Your task to perform on an android device: Is it going to rain tomorrow? Image 0: 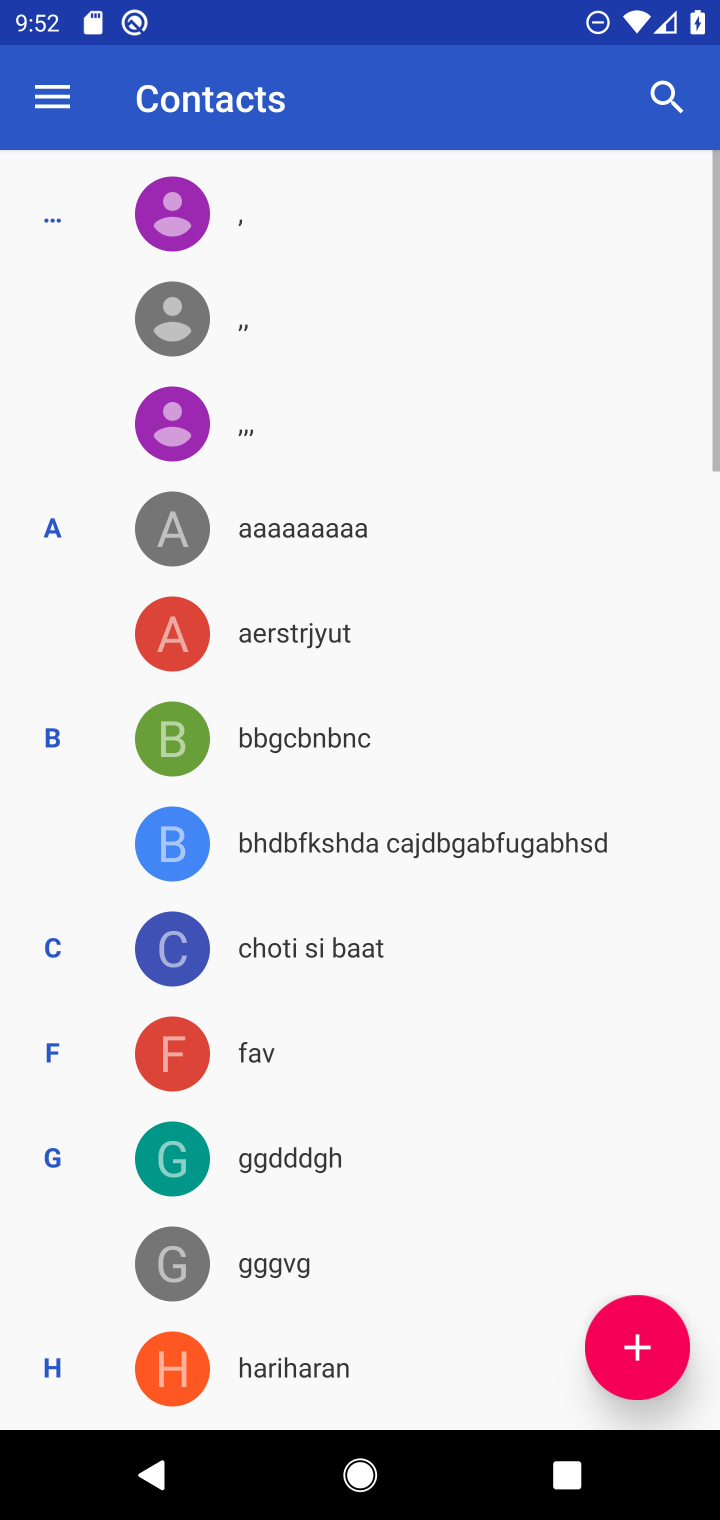
Step 0: press home button
Your task to perform on an android device: Is it going to rain tomorrow? Image 1: 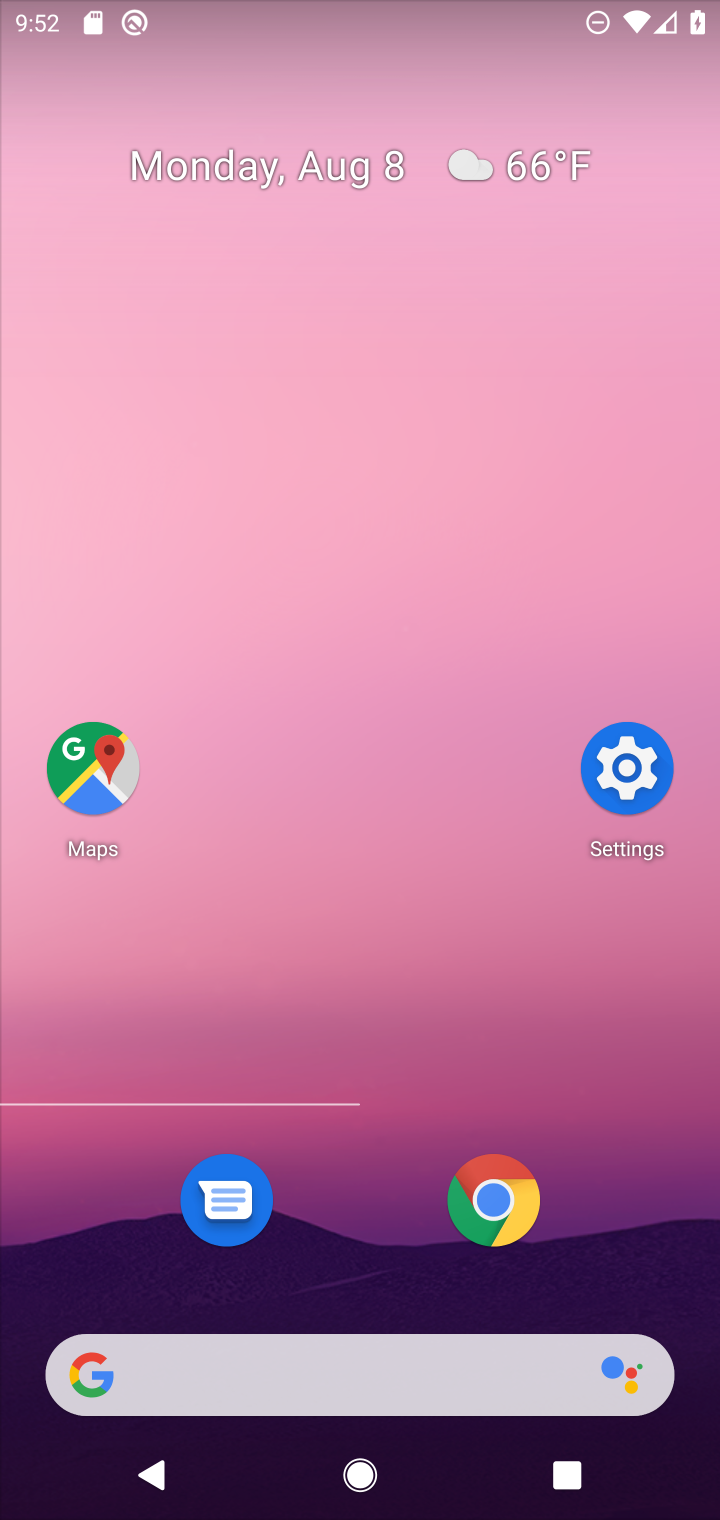
Step 1: click (254, 1374)
Your task to perform on an android device: Is it going to rain tomorrow? Image 2: 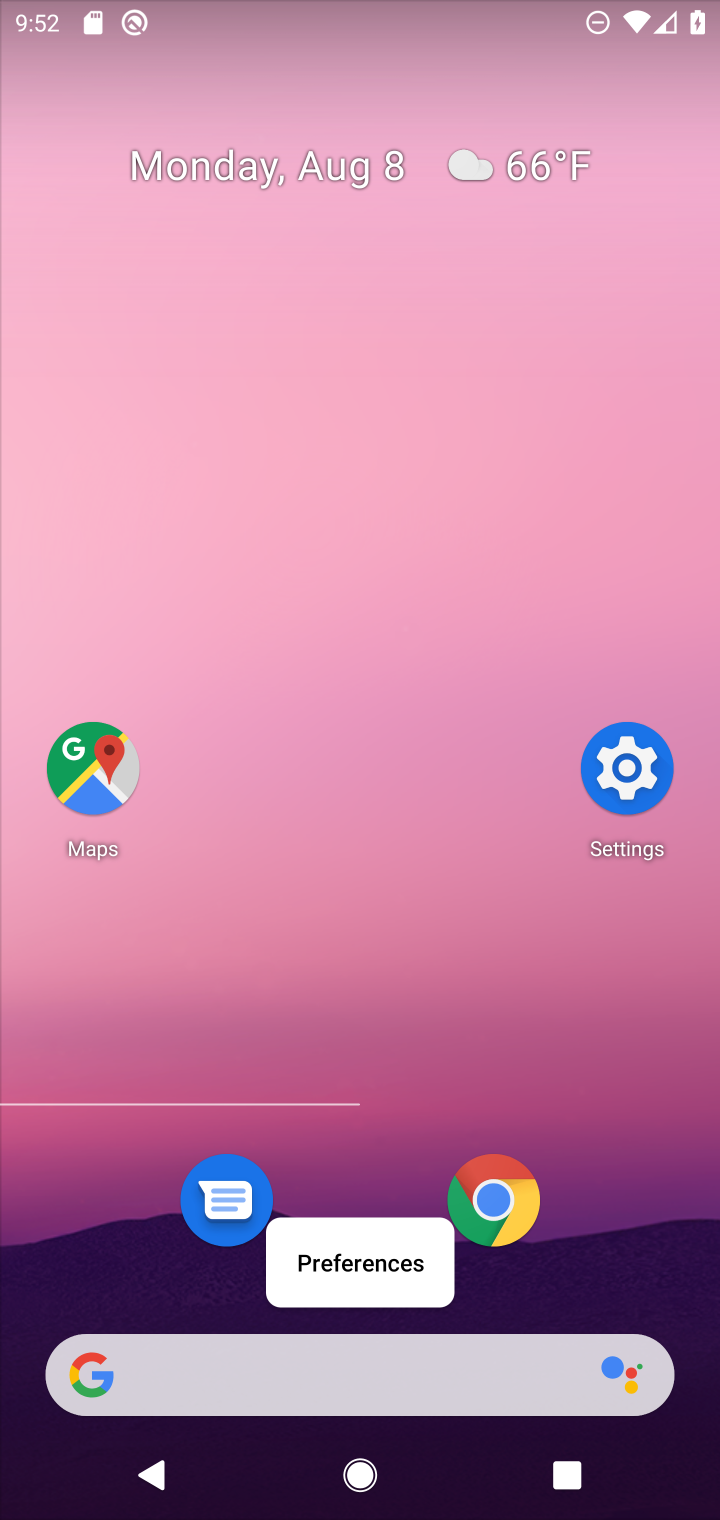
Step 2: click (237, 1370)
Your task to perform on an android device: Is it going to rain tomorrow? Image 3: 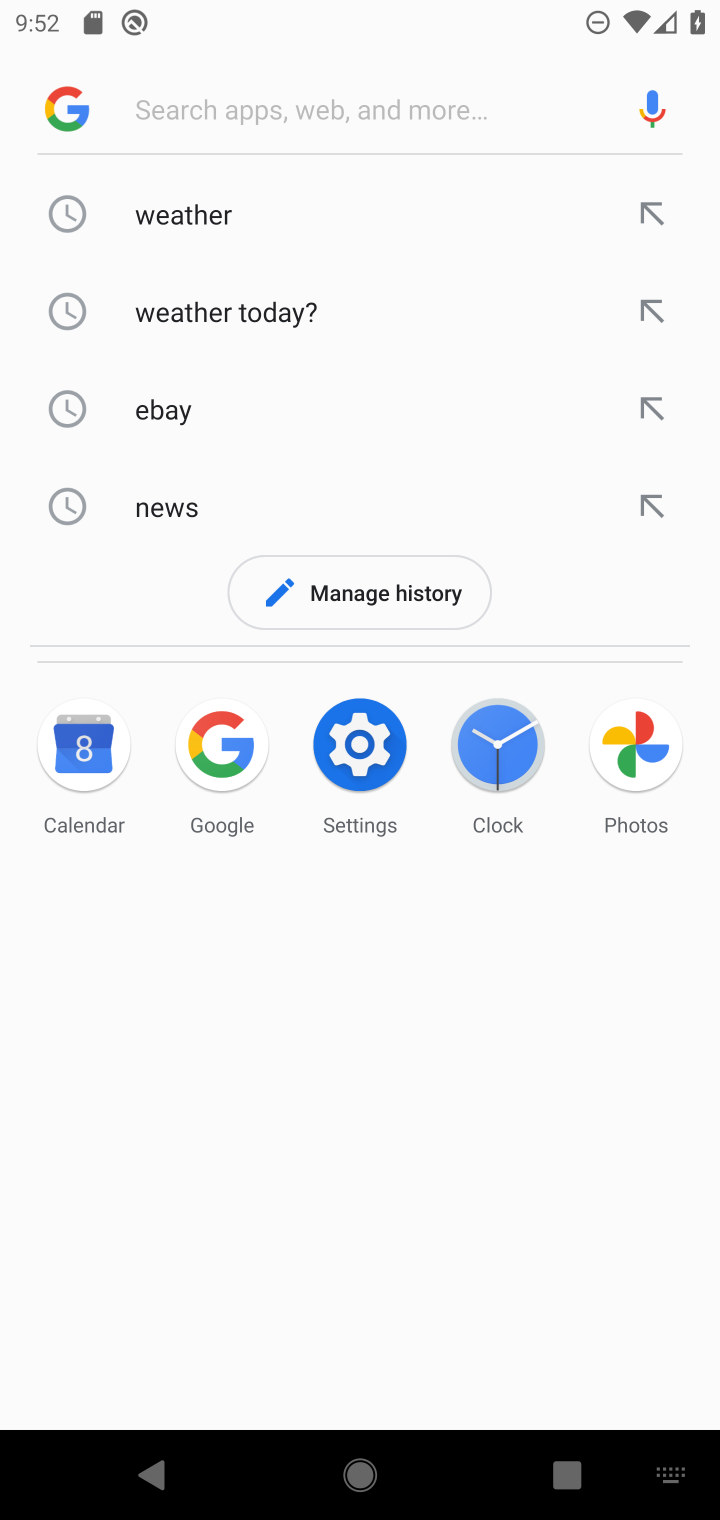
Step 3: click (194, 211)
Your task to perform on an android device: Is it going to rain tomorrow? Image 4: 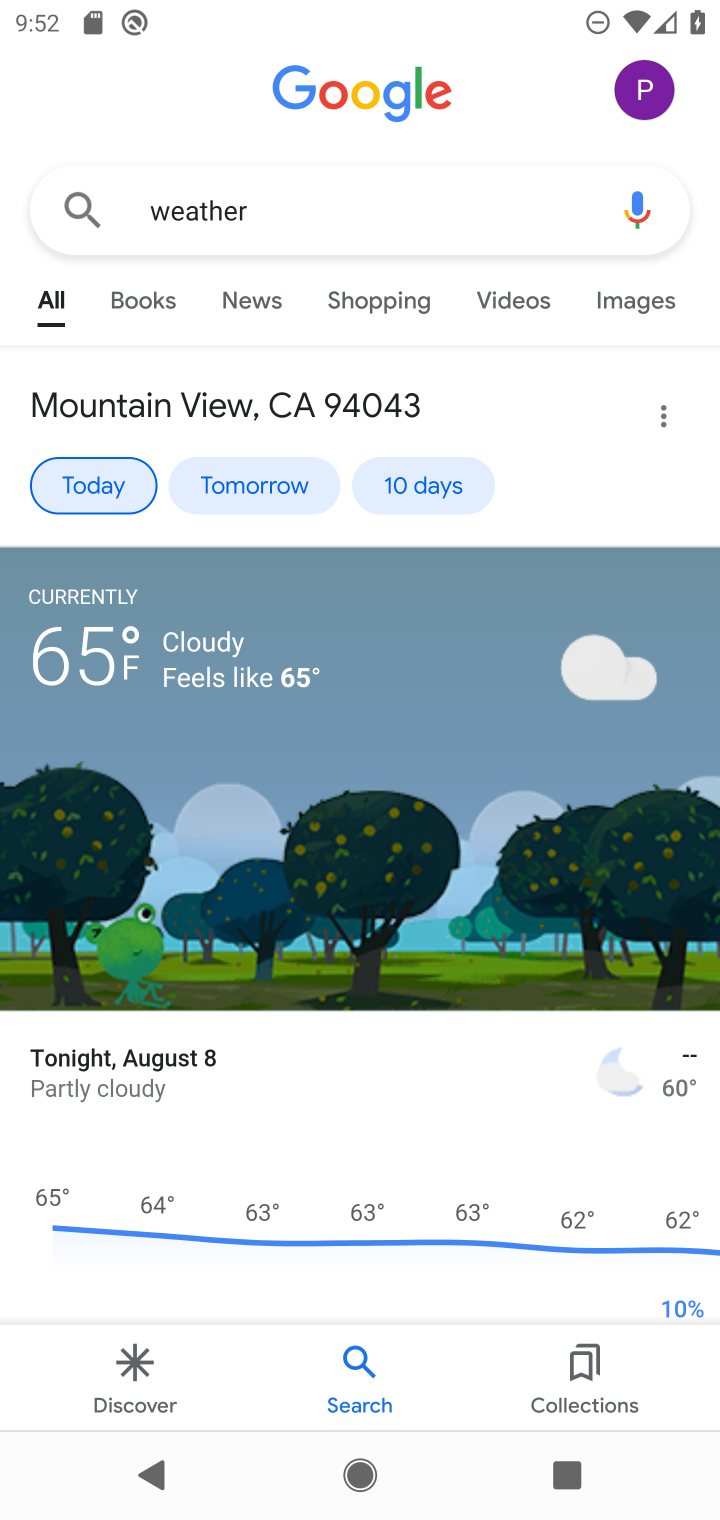
Step 4: click (253, 488)
Your task to perform on an android device: Is it going to rain tomorrow? Image 5: 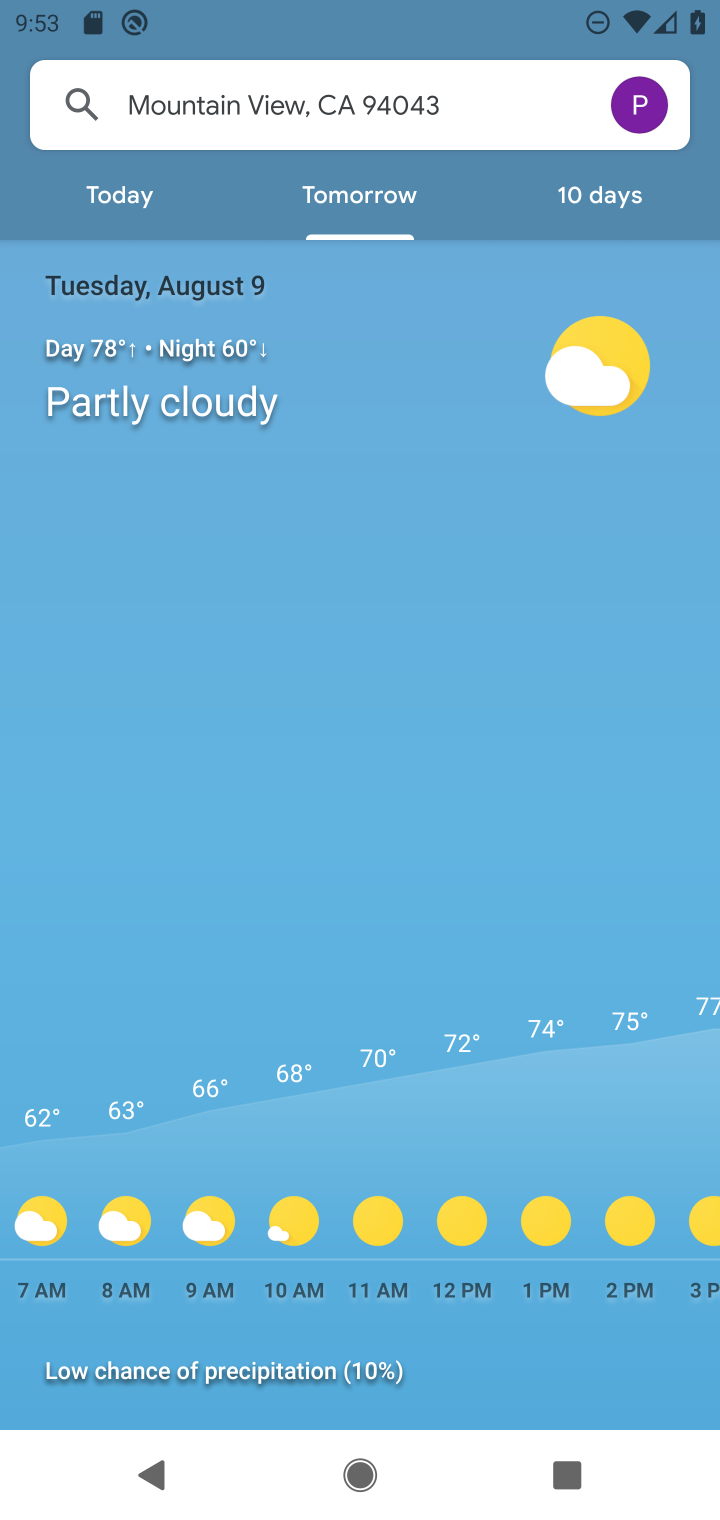
Step 5: task complete